Your task to perform on an android device: Open Amazon Image 0: 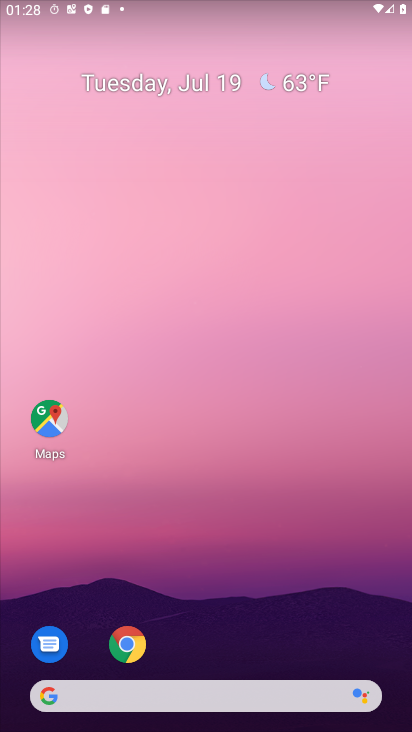
Step 0: click (125, 645)
Your task to perform on an android device: Open Amazon Image 1: 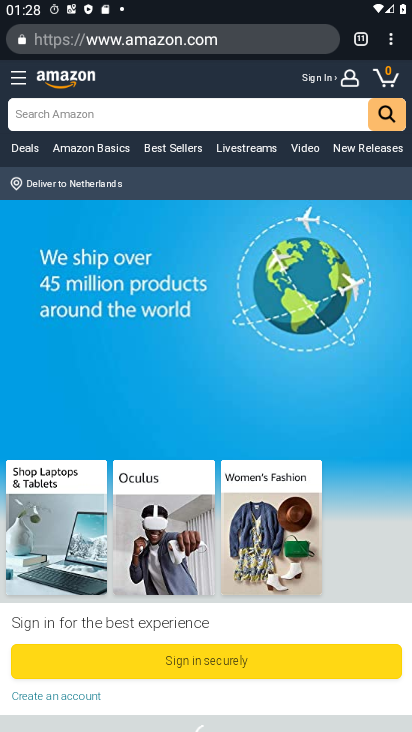
Step 1: task complete